Your task to perform on an android device: Search for Italian restaurants on Maps Image 0: 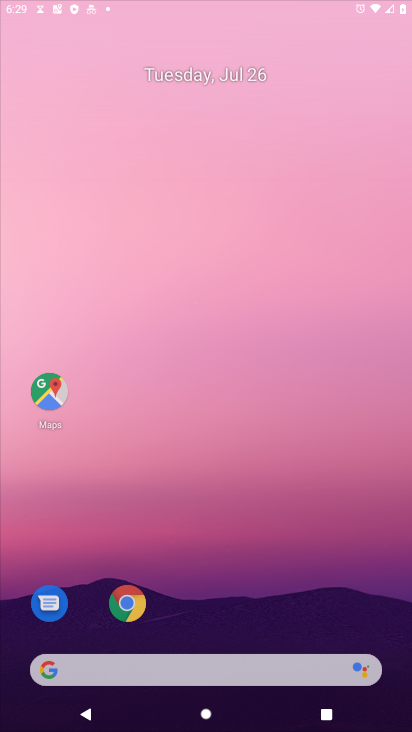
Step 0: press home button
Your task to perform on an android device: Search for Italian restaurants on Maps Image 1: 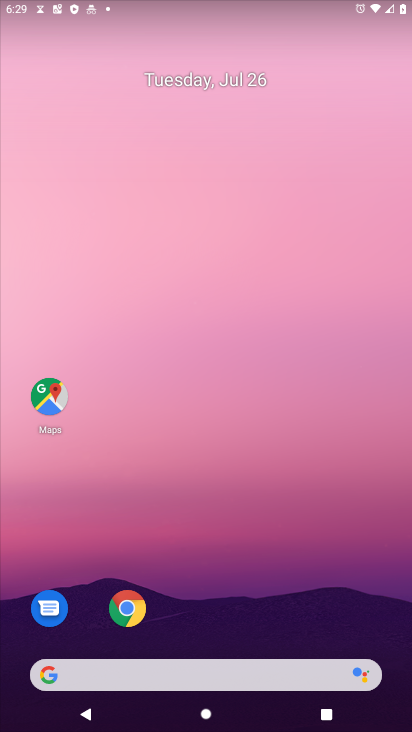
Step 1: drag from (277, 630) to (281, 9)
Your task to perform on an android device: Search for Italian restaurants on Maps Image 2: 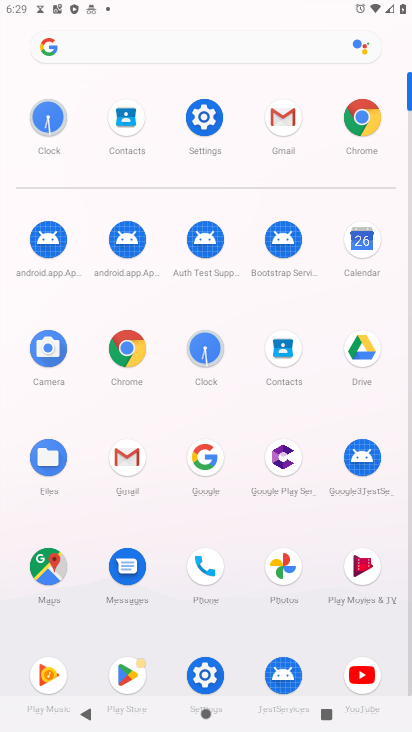
Step 2: click (37, 573)
Your task to perform on an android device: Search for Italian restaurants on Maps Image 3: 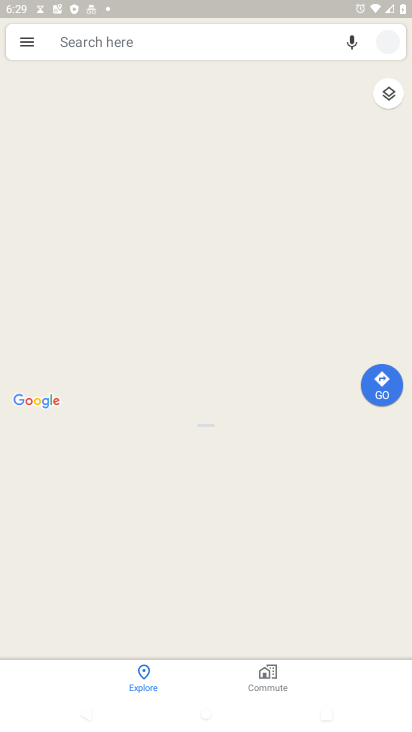
Step 3: click (125, 39)
Your task to perform on an android device: Search for Italian restaurants on Maps Image 4: 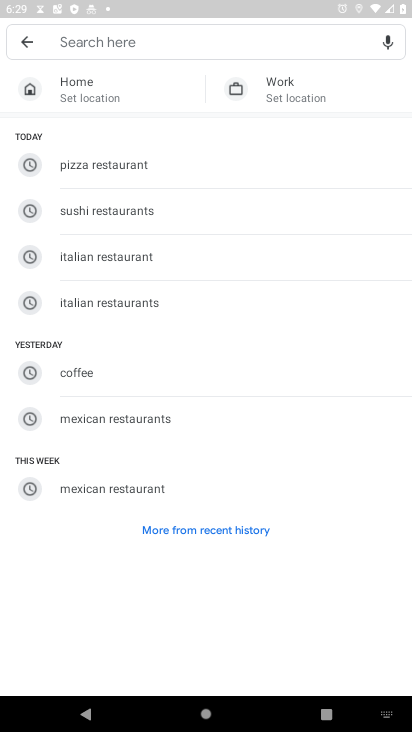
Step 4: click (116, 309)
Your task to perform on an android device: Search for Italian restaurants on Maps Image 5: 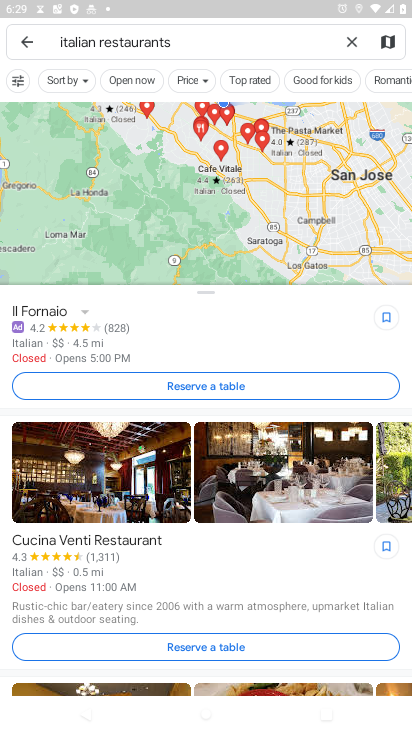
Step 5: task complete